Your task to perform on an android device: turn off notifications settings in the gmail app Image 0: 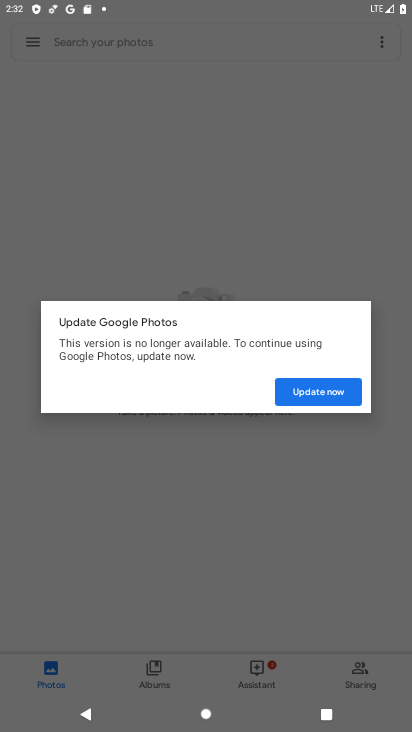
Step 0: press home button
Your task to perform on an android device: turn off notifications settings in the gmail app Image 1: 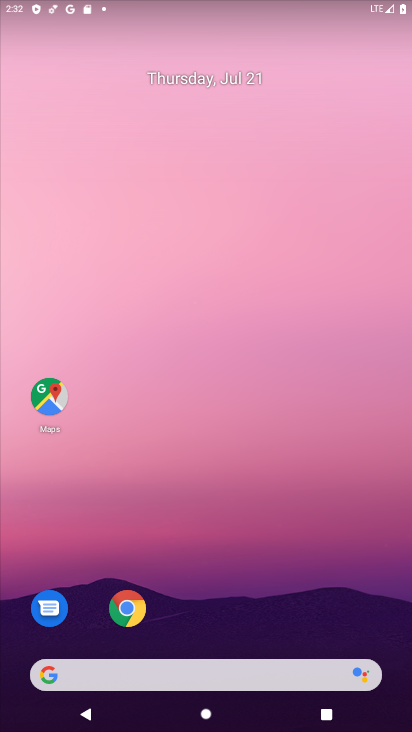
Step 1: drag from (222, 642) to (208, 91)
Your task to perform on an android device: turn off notifications settings in the gmail app Image 2: 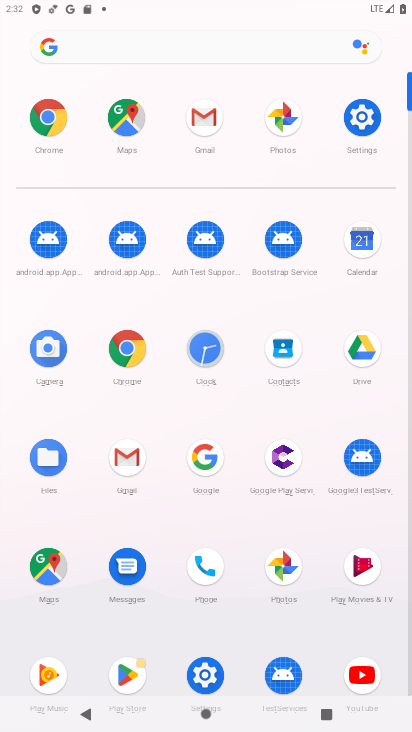
Step 2: click (115, 453)
Your task to perform on an android device: turn off notifications settings in the gmail app Image 3: 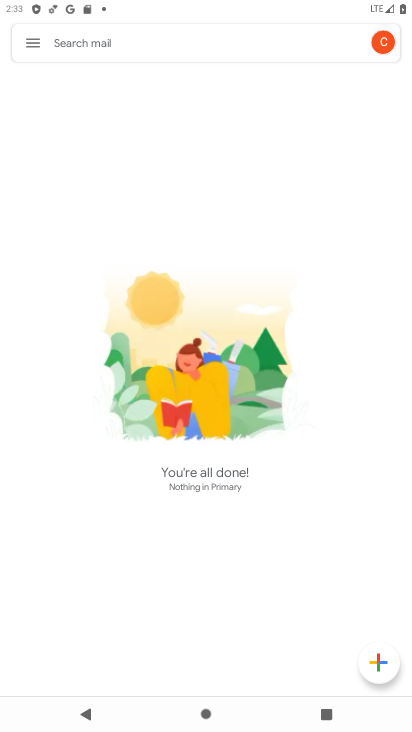
Step 3: click (31, 34)
Your task to perform on an android device: turn off notifications settings in the gmail app Image 4: 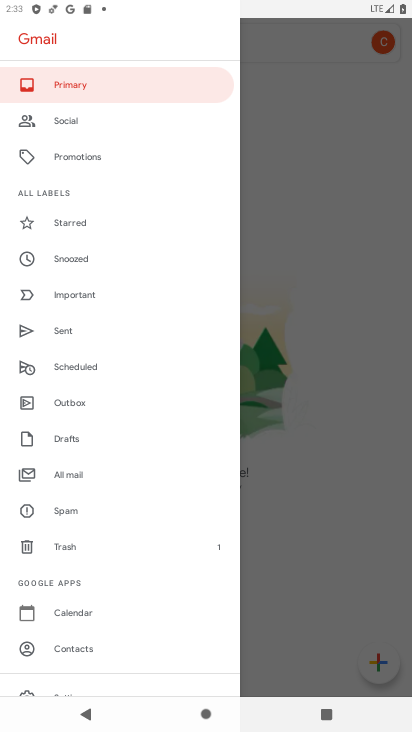
Step 4: drag from (74, 628) to (46, 141)
Your task to perform on an android device: turn off notifications settings in the gmail app Image 5: 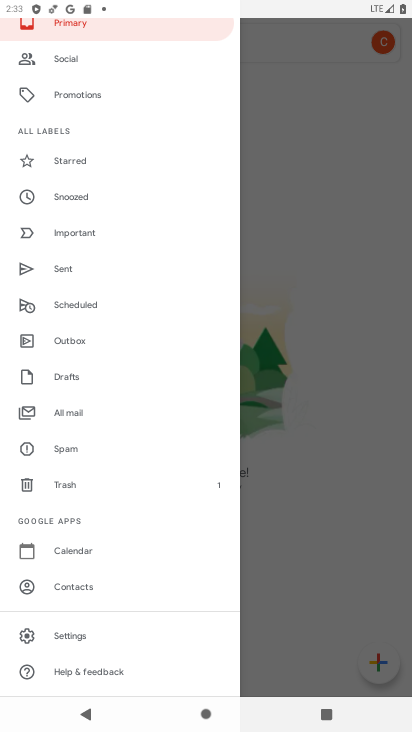
Step 5: click (54, 623)
Your task to perform on an android device: turn off notifications settings in the gmail app Image 6: 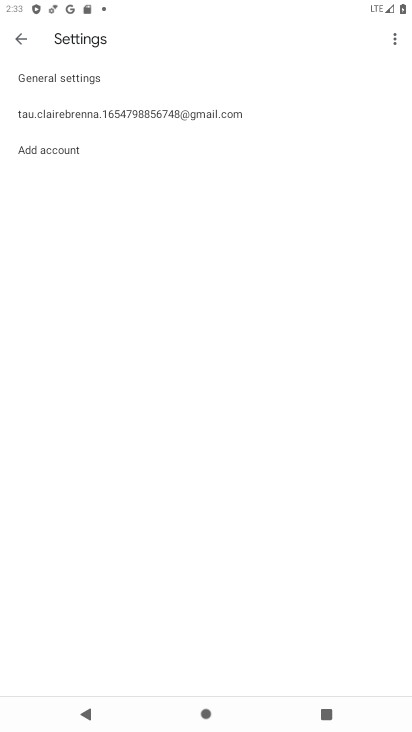
Step 6: click (66, 80)
Your task to perform on an android device: turn off notifications settings in the gmail app Image 7: 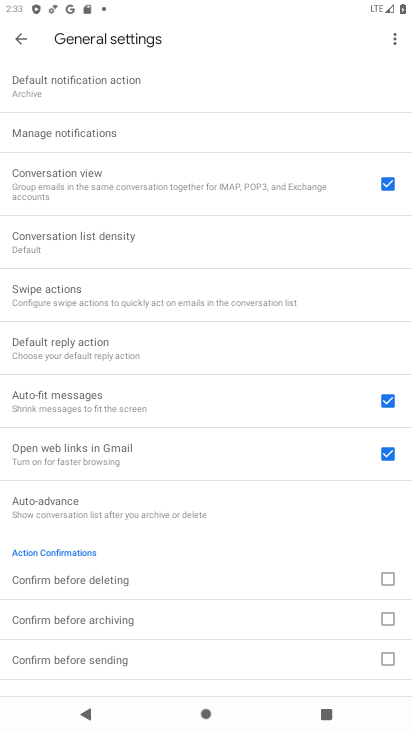
Step 7: click (73, 119)
Your task to perform on an android device: turn off notifications settings in the gmail app Image 8: 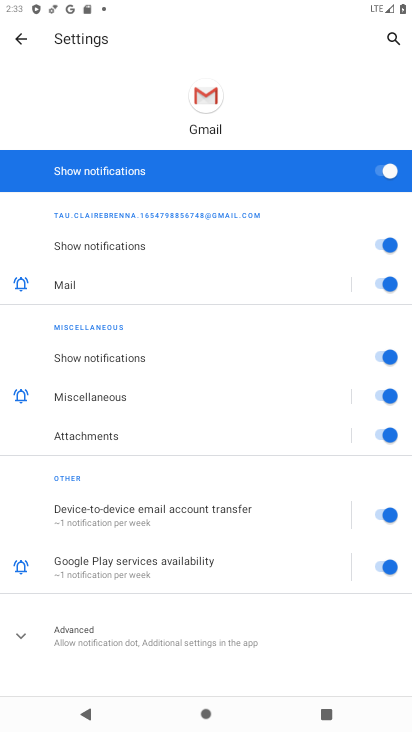
Step 8: click (380, 172)
Your task to perform on an android device: turn off notifications settings in the gmail app Image 9: 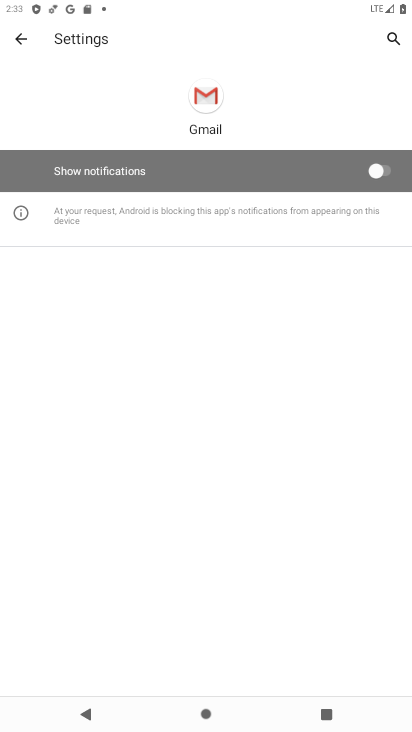
Step 9: task complete